Your task to perform on an android device: Go to location settings Image 0: 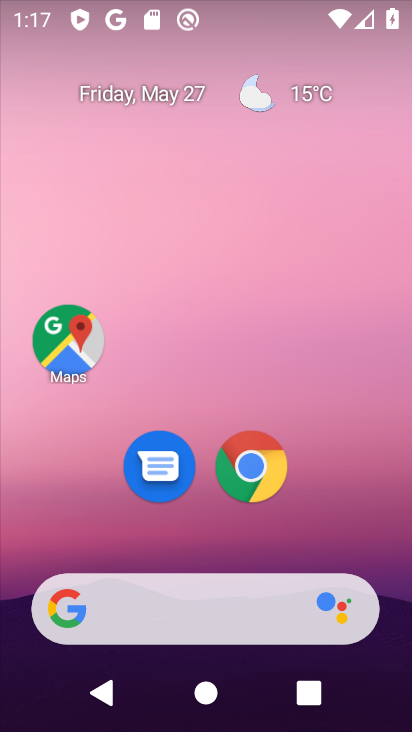
Step 0: drag from (175, 322) to (209, 168)
Your task to perform on an android device: Go to location settings Image 1: 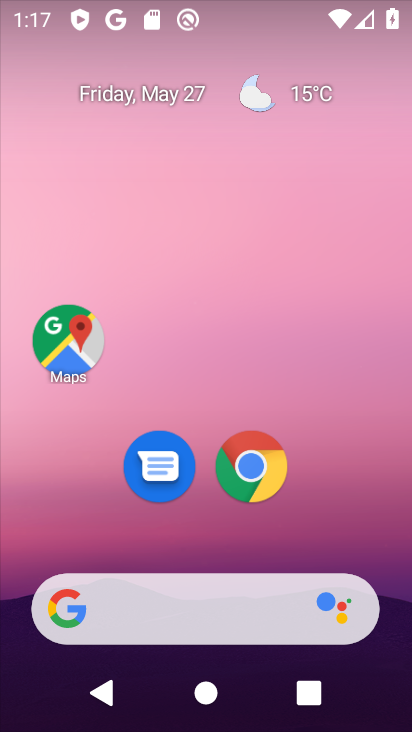
Step 1: drag from (145, 559) to (246, 126)
Your task to perform on an android device: Go to location settings Image 2: 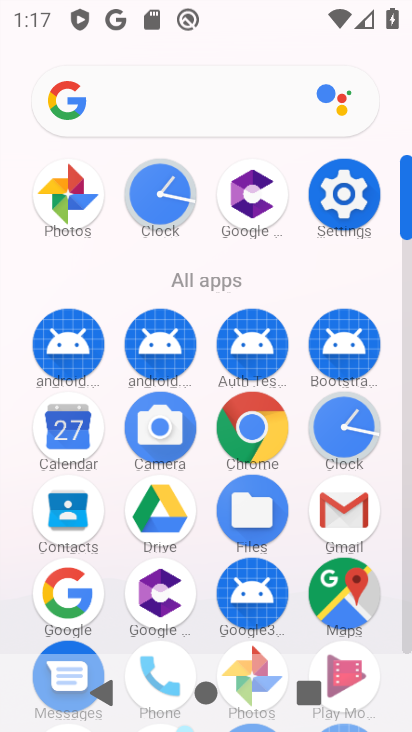
Step 2: drag from (163, 658) to (254, 333)
Your task to perform on an android device: Go to location settings Image 3: 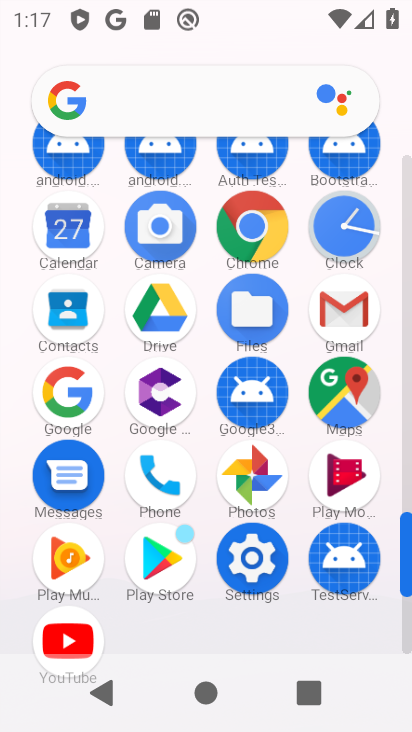
Step 3: click (254, 566)
Your task to perform on an android device: Go to location settings Image 4: 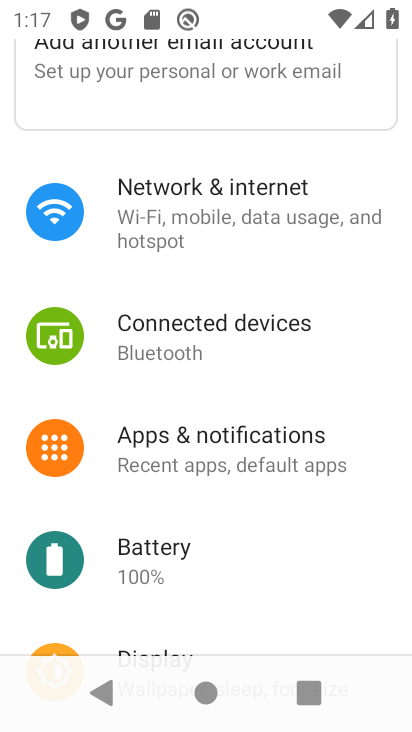
Step 4: drag from (179, 568) to (253, 191)
Your task to perform on an android device: Go to location settings Image 5: 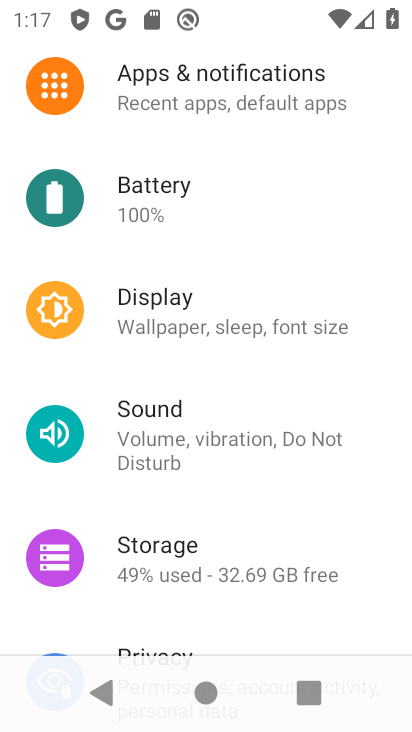
Step 5: drag from (184, 574) to (258, 234)
Your task to perform on an android device: Go to location settings Image 6: 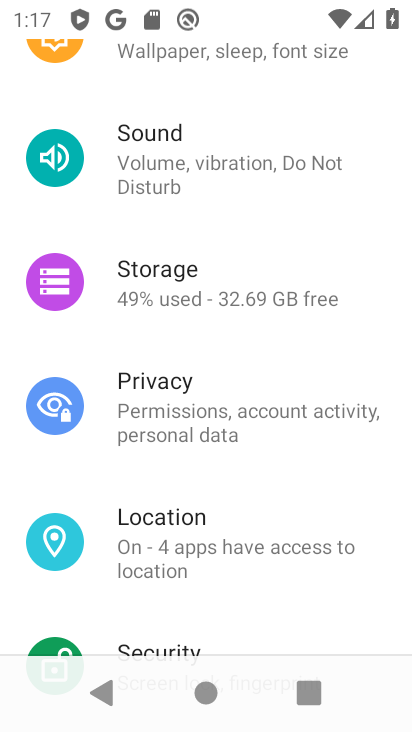
Step 6: click (197, 525)
Your task to perform on an android device: Go to location settings Image 7: 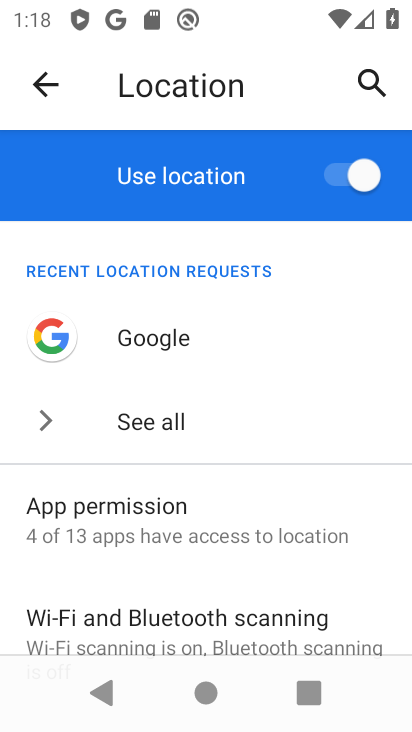
Step 7: task complete